Your task to perform on an android device: find photos in the google photos app Image 0: 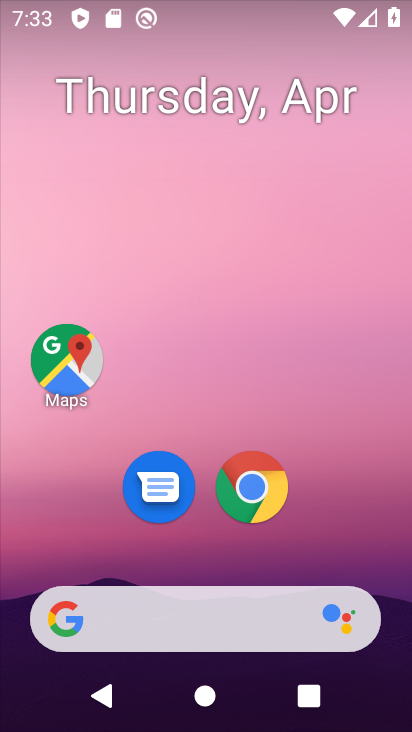
Step 0: drag from (358, 546) to (223, 171)
Your task to perform on an android device: find photos in the google photos app Image 1: 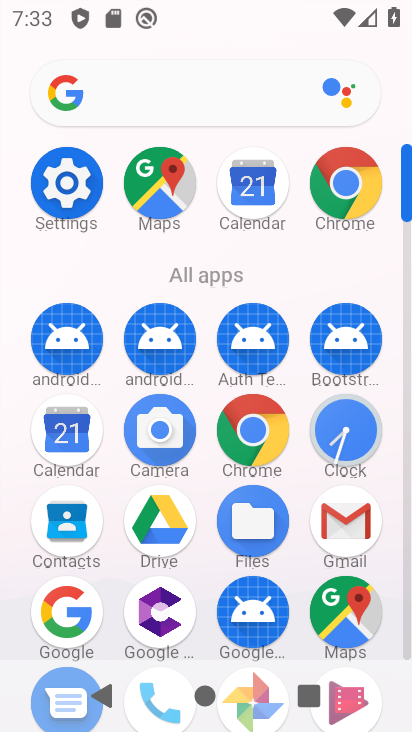
Step 1: click (405, 656)
Your task to perform on an android device: find photos in the google photos app Image 2: 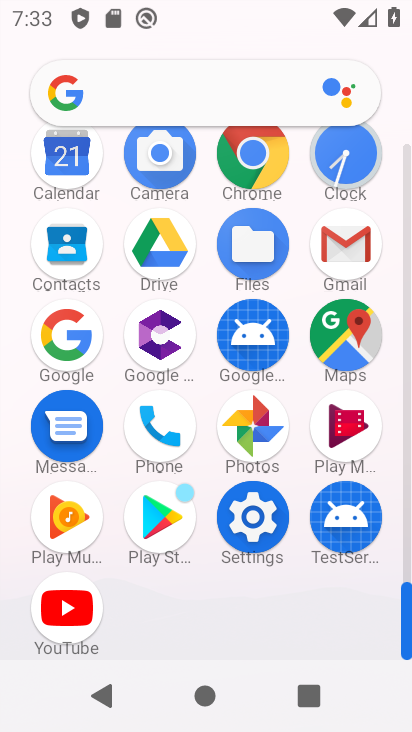
Step 2: click (405, 656)
Your task to perform on an android device: find photos in the google photos app Image 3: 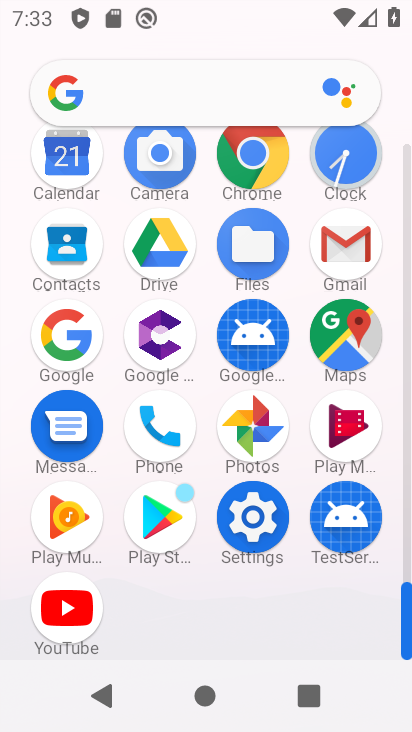
Step 3: click (245, 412)
Your task to perform on an android device: find photos in the google photos app Image 4: 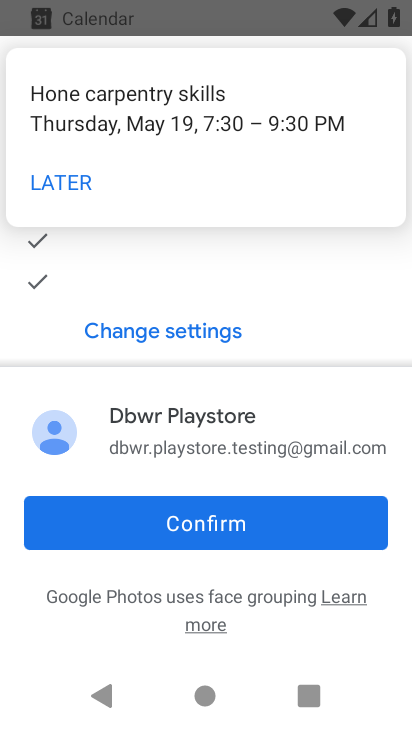
Step 4: click (59, 178)
Your task to perform on an android device: find photos in the google photos app Image 5: 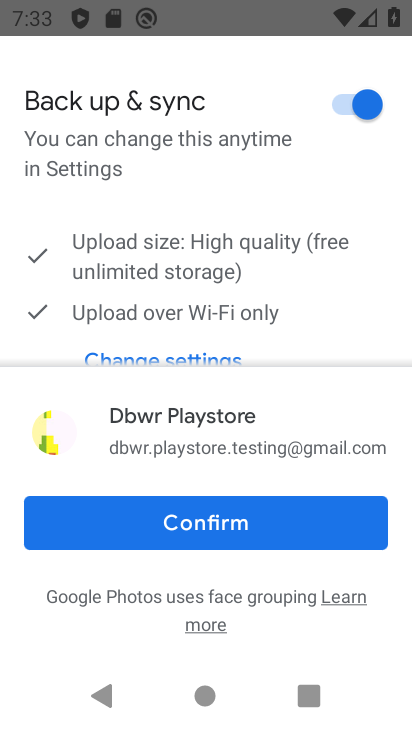
Step 5: click (230, 519)
Your task to perform on an android device: find photos in the google photos app Image 6: 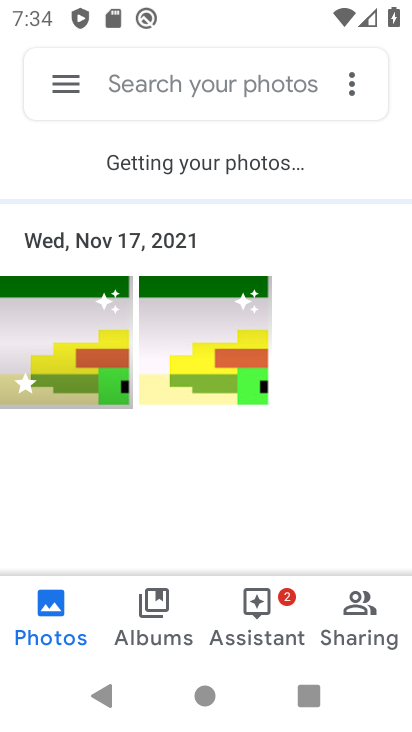
Step 6: task complete